Your task to perform on an android device: What's on my calendar today? Image 0: 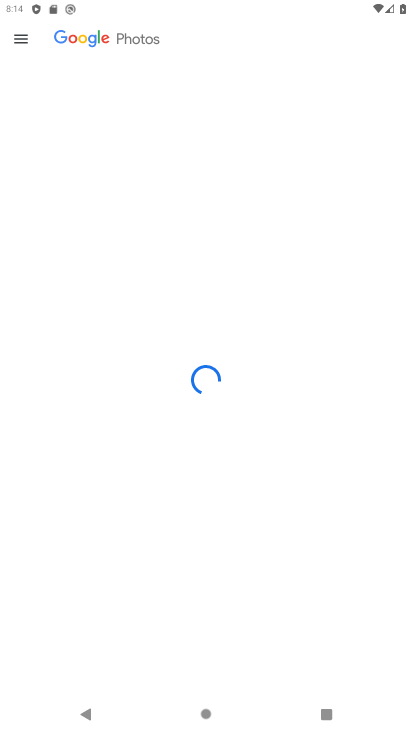
Step 0: press home button
Your task to perform on an android device: What's on my calendar today? Image 1: 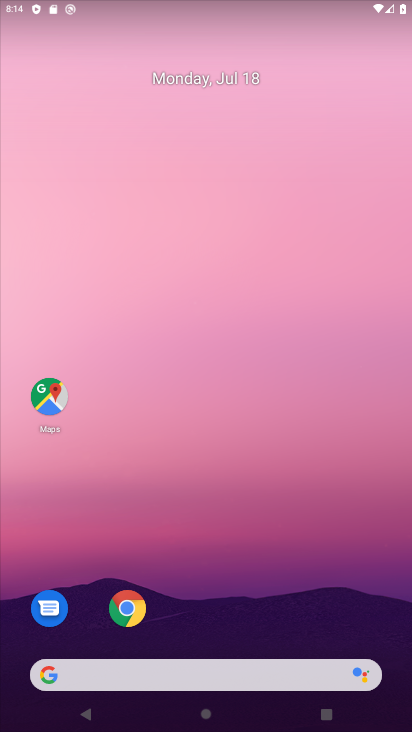
Step 1: drag from (233, 645) to (204, 126)
Your task to perform on an android device: What's on my calendar today? Image 2: 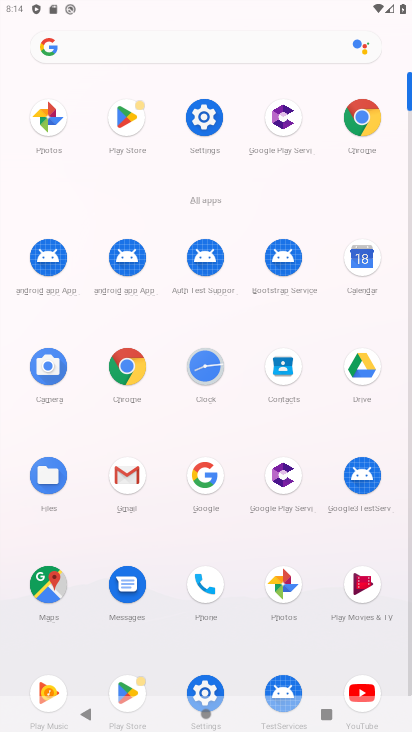
Step 2: click (365, 255)
Your task to perform on an android device: What's on my calendar today? Image 3: 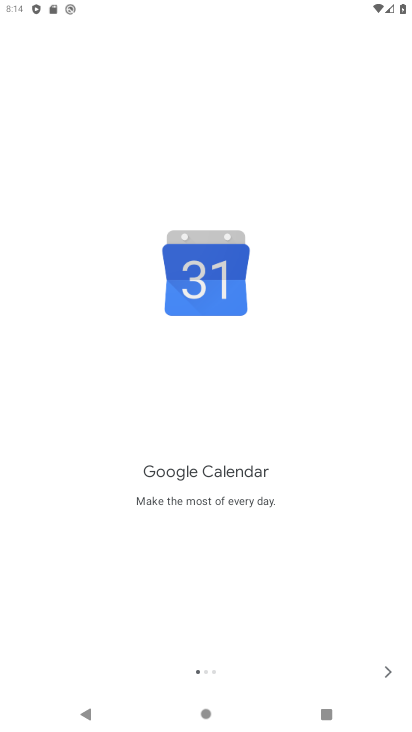
Step 3: click (388, 667)
Your task to perform on an android device: What's on my calendar today? Image 4: 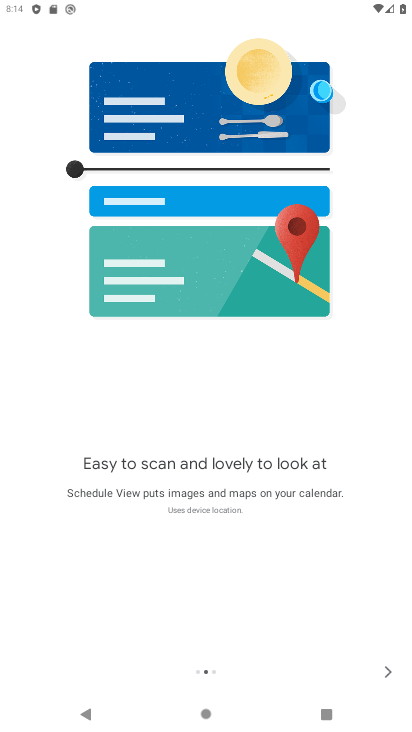
Step 4: click (386, 675)
Your task to perform on an android device: What's on my calendar today? Image 5: 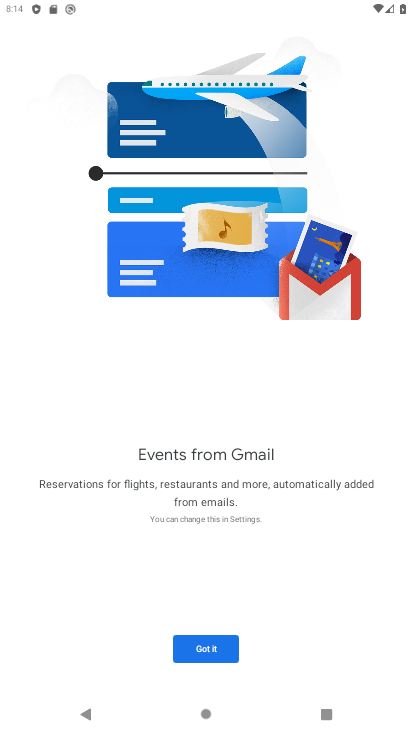
Step 5: click (212, 644)
Your task to perform on an android device: What's on my calendar today? Image 6: 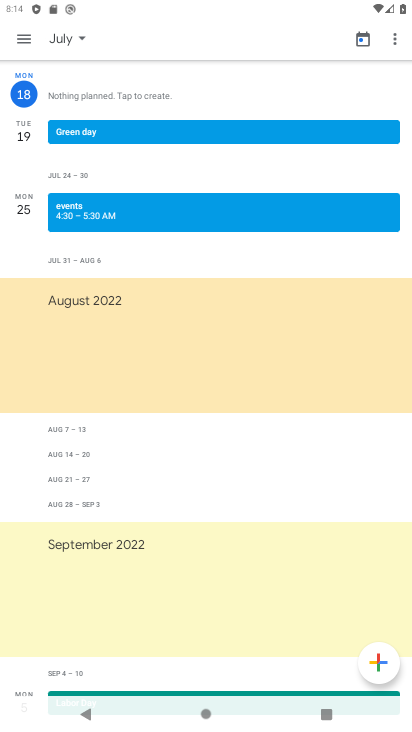
Step 6: click (71, 37)
Your task to perform on an android device: What's on my calendar today? Image 7: 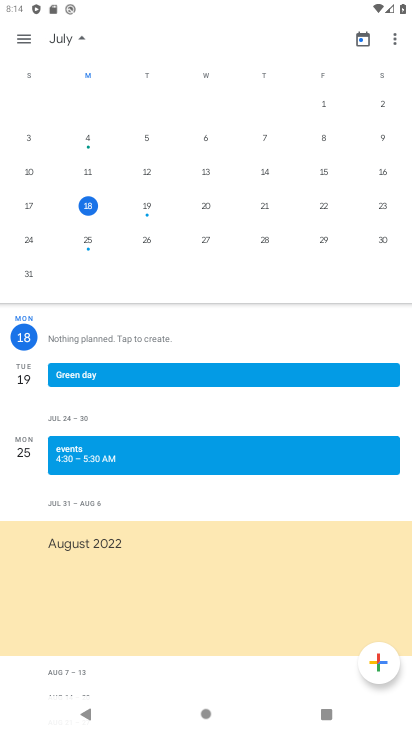
Step 7: click (83, 205)
Your task to perform on an android device: What's on my calendar today? Image 8: 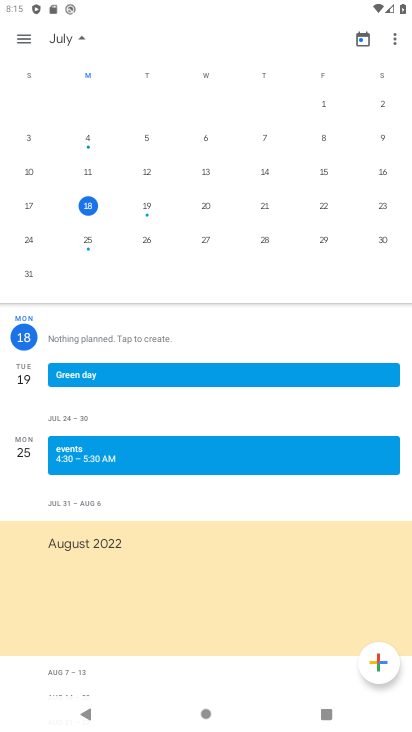
Step 8: task complete